Your task to perform on an android device: Search for a new lawnmower on Lowes. Image 0: 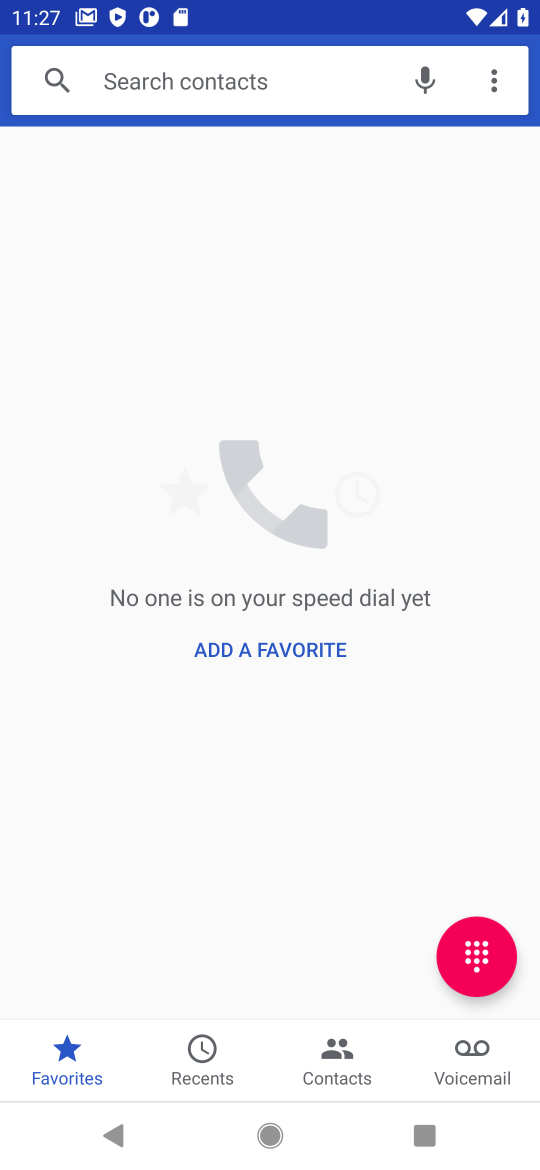
Step 0: press home button
Your task to perform on an android device: Search for a new lawnmower on Lowes. Image 1: 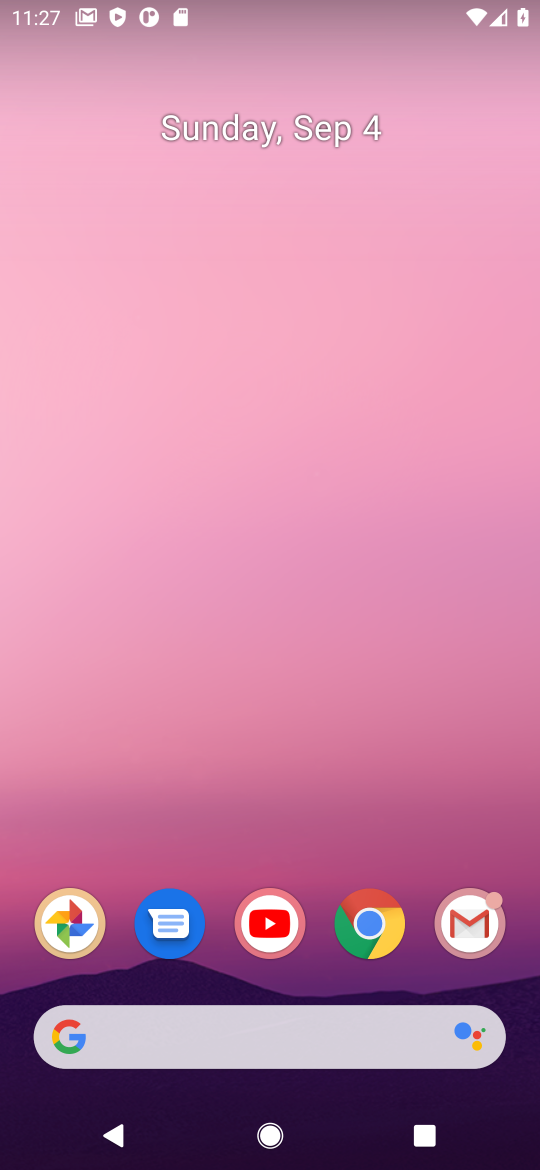
Step 1: click (372, 927)
Your task to perform on an android device: Search for a new lawnmower on Lowes. Image 2: 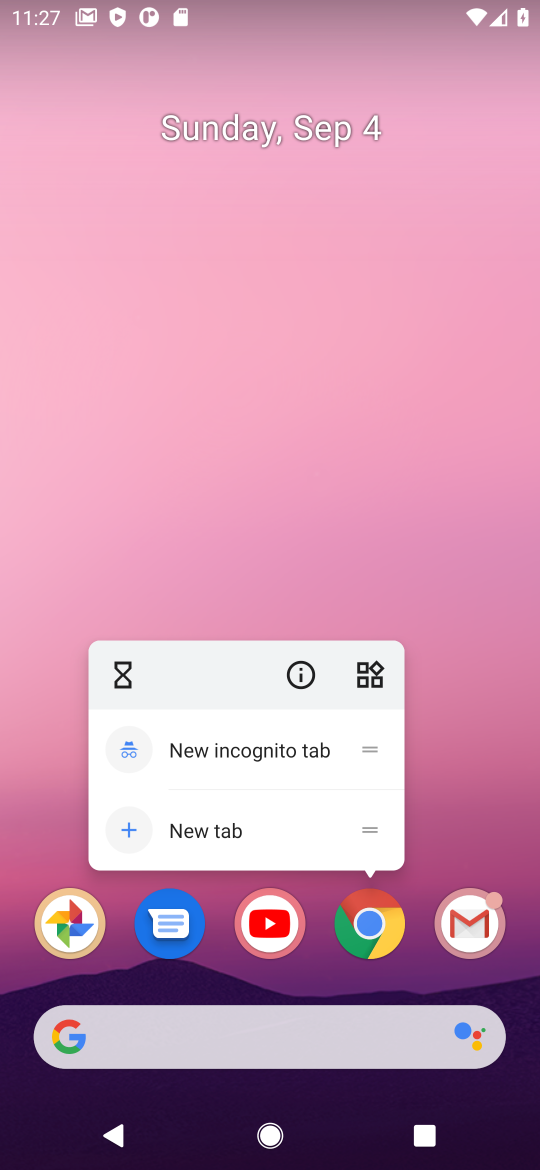
Step 2: click (351, 925)
Your task to perform on an android device: Search for a new lawnmower on Lowes. Image 3: 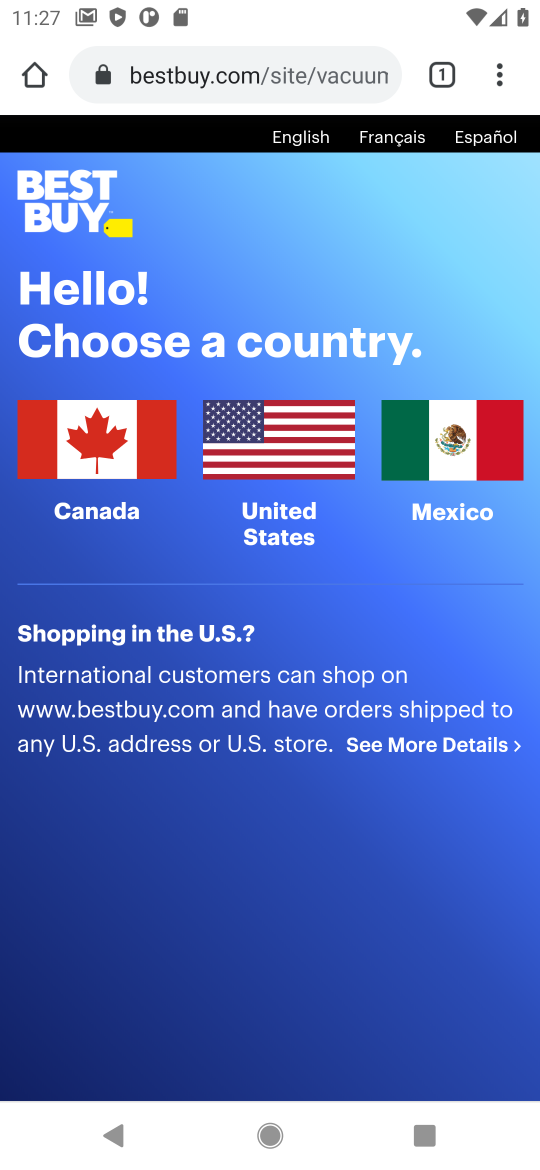
Step 3: press back button
Your task to perform on an android device: Search for a new lawnmower on Lowes. Image 4: 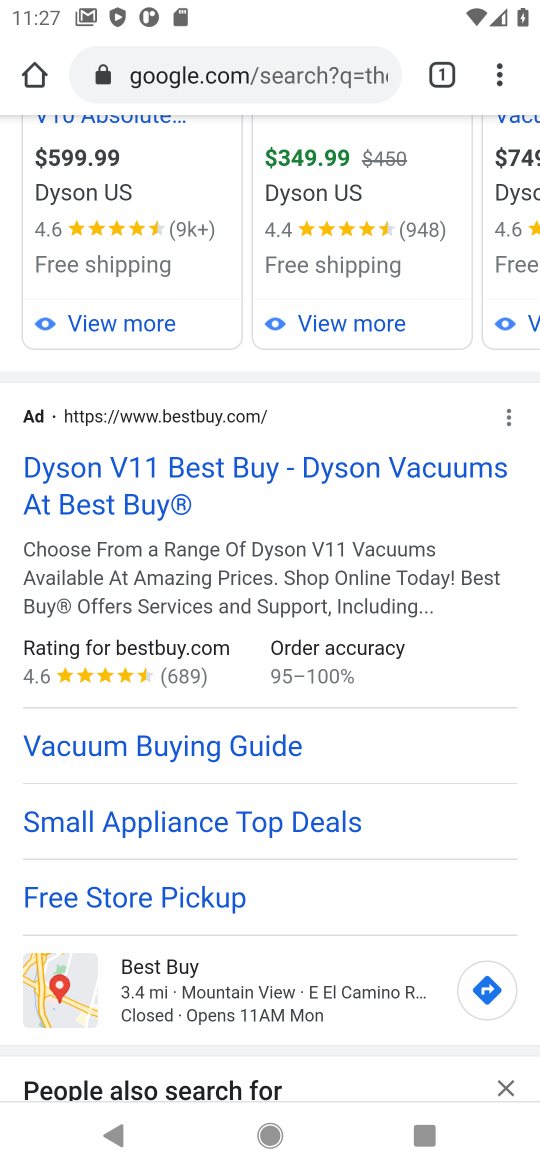
Step 4: click (232, 63)
Your task to perform on an android device: Search for a new lawnmower on Lowes. Image 5: 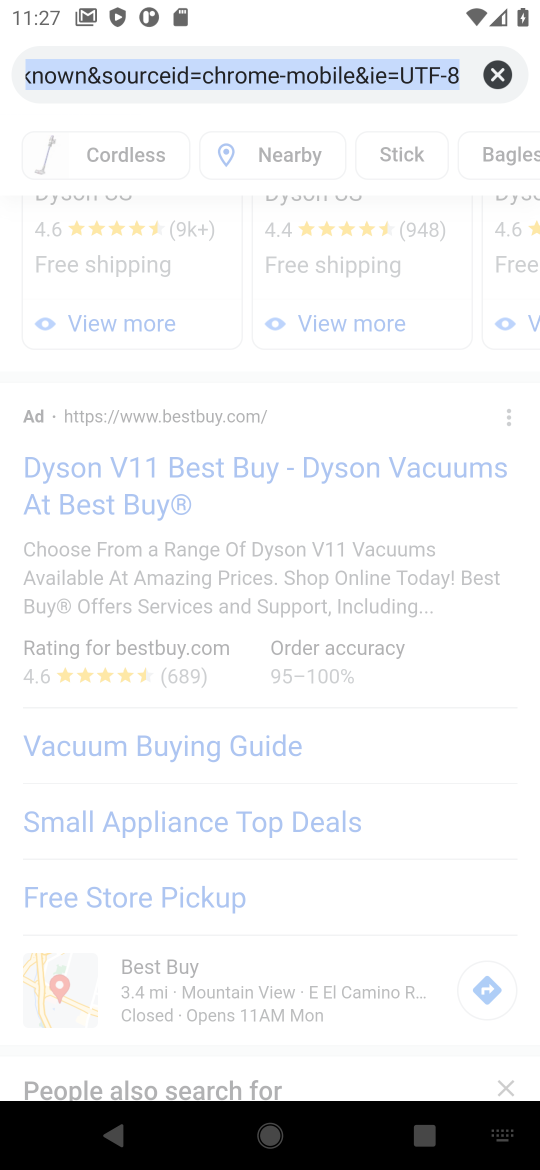
Step 5: click (486, 73)
Your task to perform on an android device: Search for a new lawnmower on Lowes. Image 6: 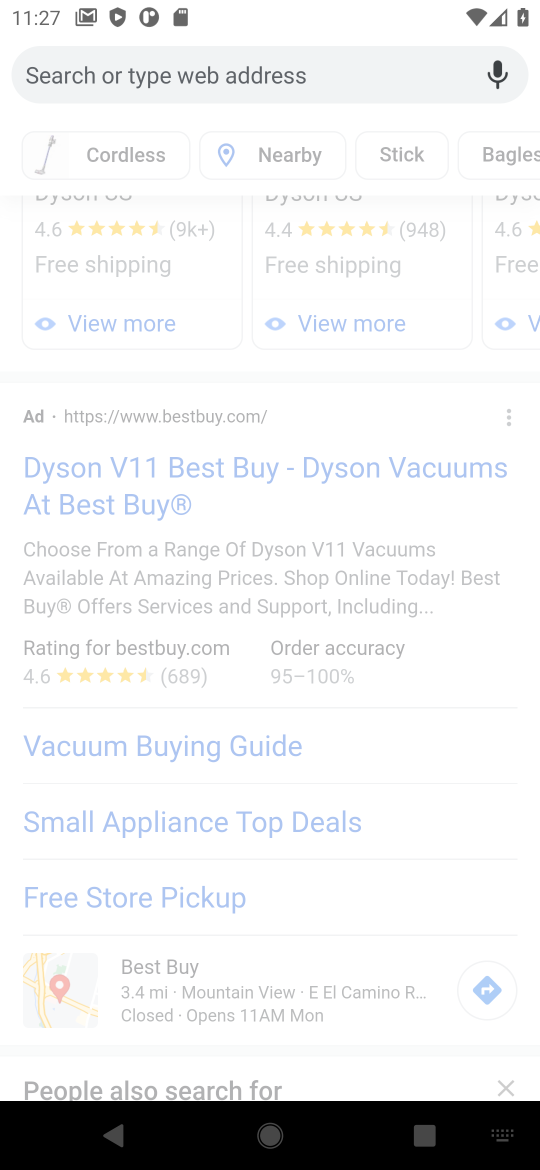
Step 6: type "new lawnmower on Lowes."
Your task to perform on an android device: Search for a new lawnmower on Lowes. Image 7: 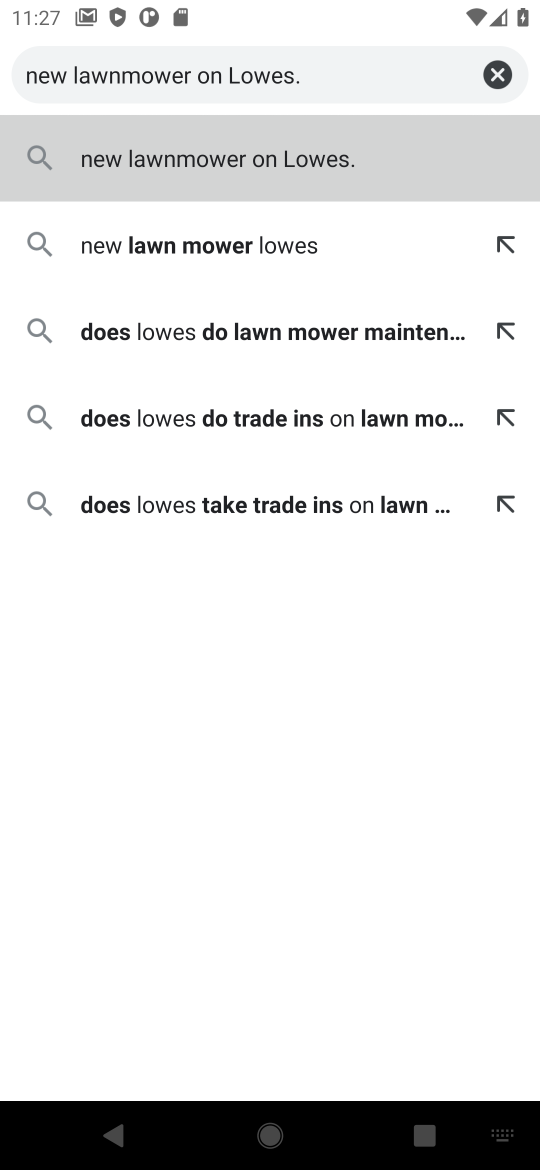
Step 7: click (204, 166)
Your task to perform on an android device: Search for a new lawnmower on Lowes. Image 8: 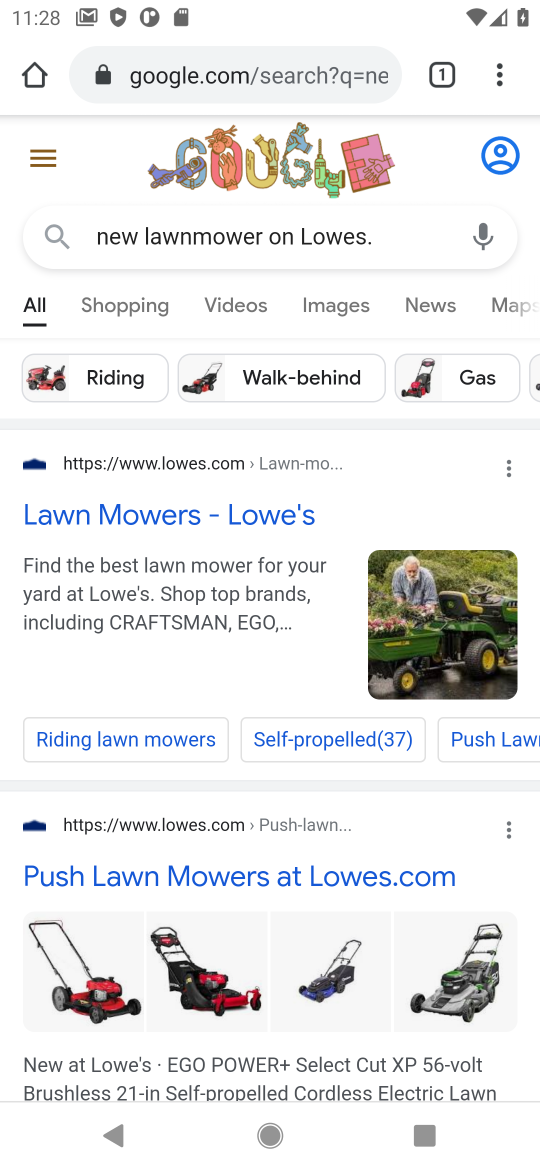
Step 8: task complete